Your task to perform on an android device: Go to calendar. Show me events next week Image 0: 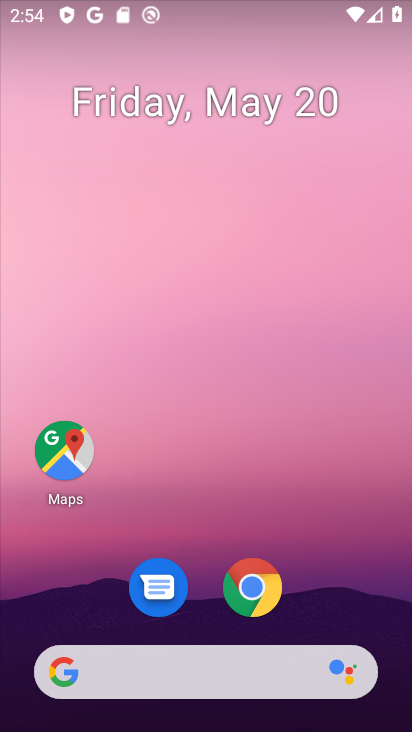
Step 0: press home button
Your task to perform on an android device: Go to calendar. Show me events next week Image 1: 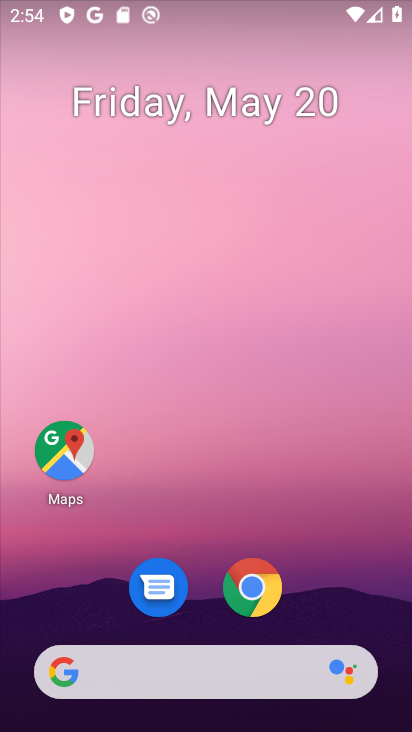
Step 1: drag from (150, 673) to (265, 256)
Your task to perform on an android device: Go to calendar. Show me events next week Image 2: 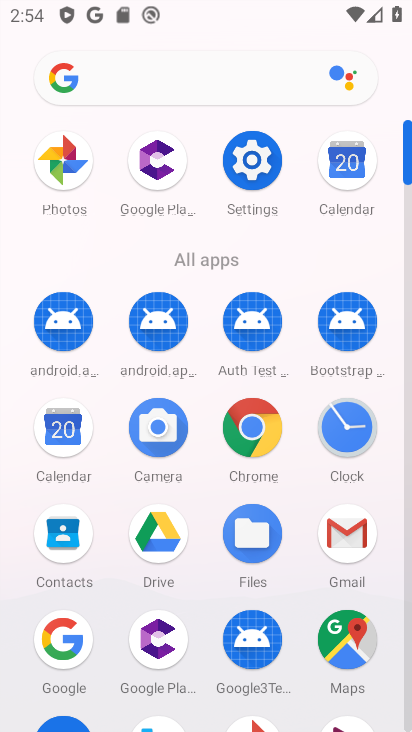
Step 2: click (59, 435)
Your task to perform on an android device: Go to calendar. Show me events next week Image 3: 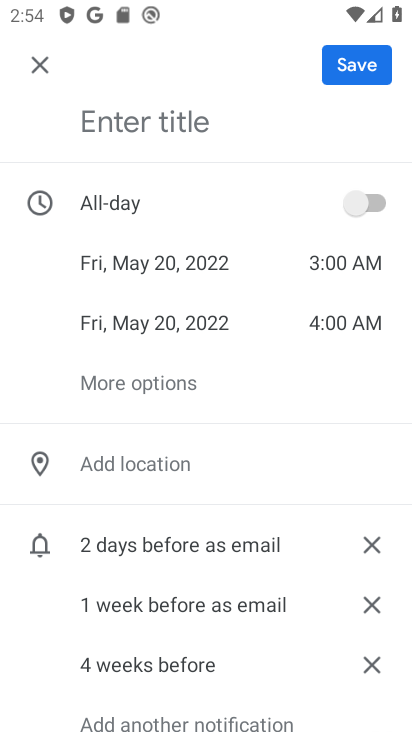
Step 3: click (42, 61)
Your task to perform on an android device: Go to calendar. Show me events next week Image 4: 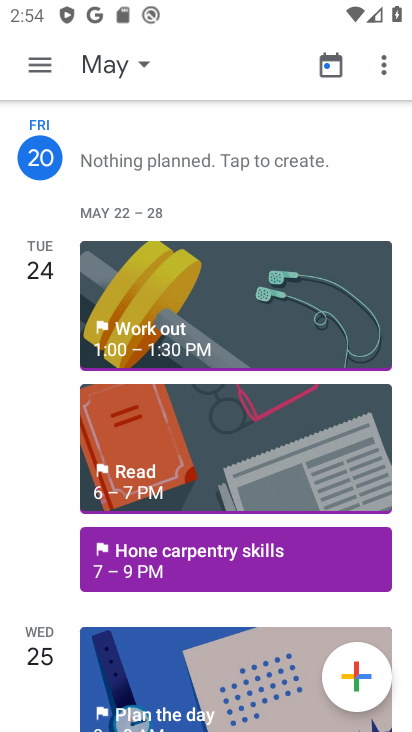
Step 4: click (116, 70)
Your task to perform on an android device: Go to calendar. Show me events next week Image 5: 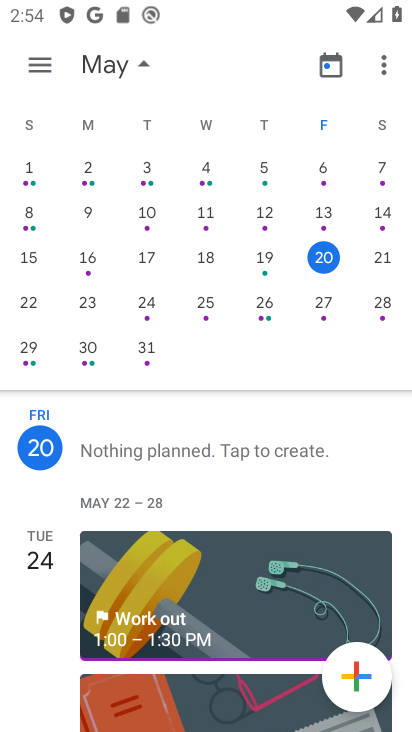
Step 5: drag from (339, 283) to (100, 277)
Your task to perform on an android device: Go to calendar. Show me events next week Image 6: 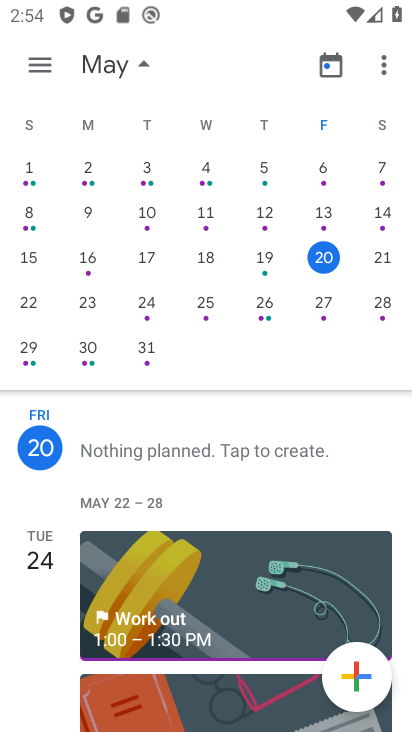
Step 6: drag from (368, 232) to (66, 263)
Your task to perform on an android device: Go to calendar. Show me events next week Image 7: 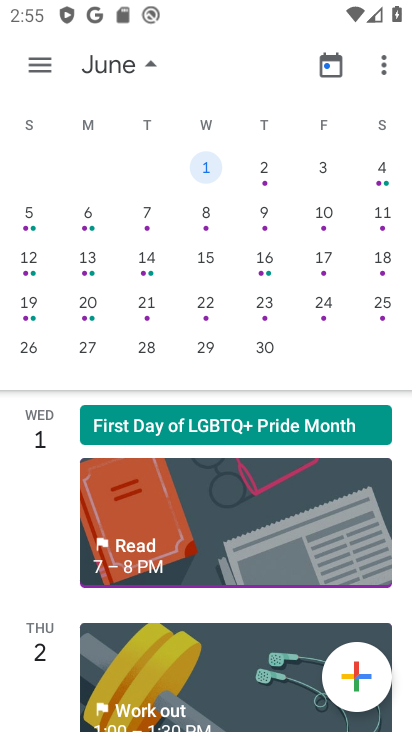
Step 7: drag from (98, 263) to (410, 268)
Your task to perform on an android device: Go to calendar. Show me events next week Image 8: 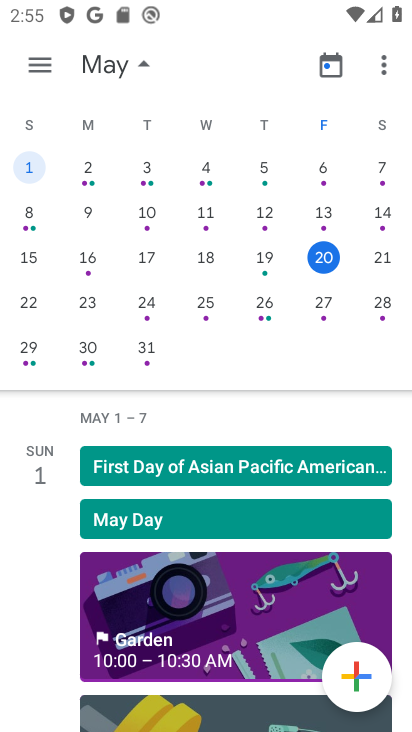
Step 8: click (33, 307)
Your task to perform on an android device: Go to calendar. Show me events next week Image 9: 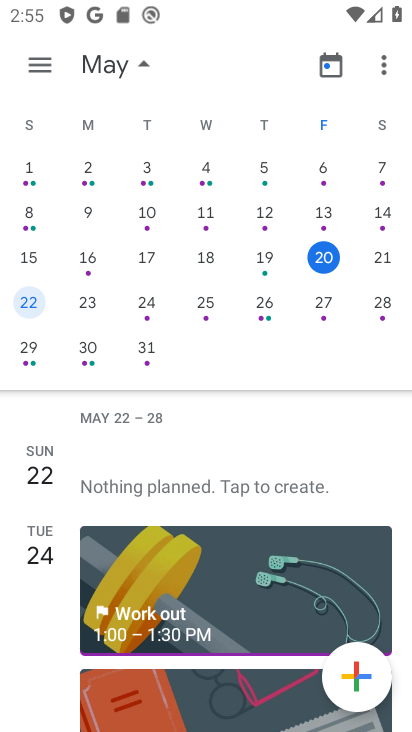
Step 9: click (41, 67)
Your task to perform on an android device: Go to calendar. Show me events next week Image 10: 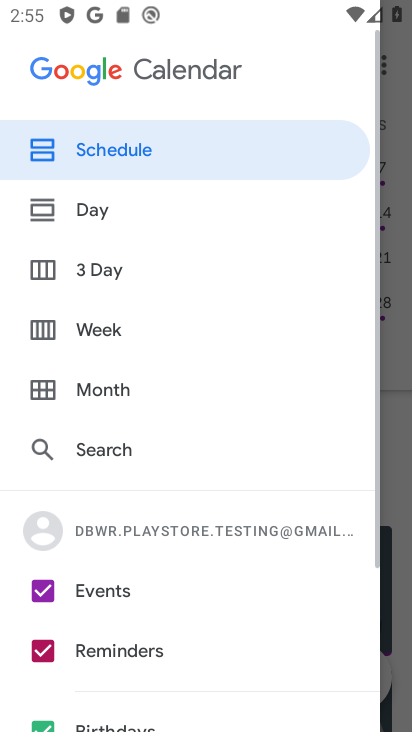
Step 10: click (98, 329)
Your task to perform on an android device: Go to calendar. Show me events next week Image 11: 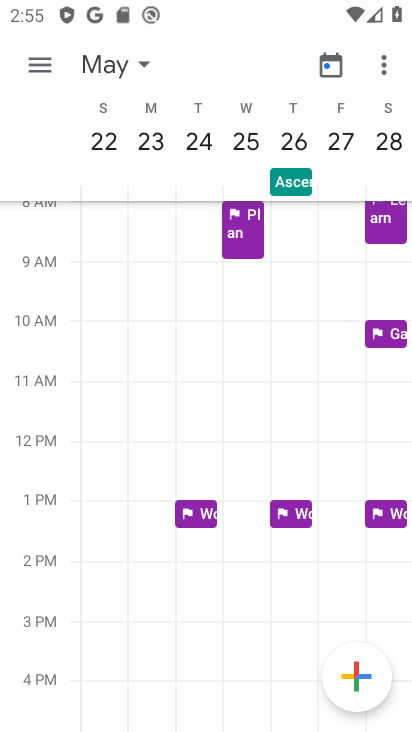
Step 11: click (41, 77)
Your task to perform on an android device: Go to calendar. Show me events next week Image 12: 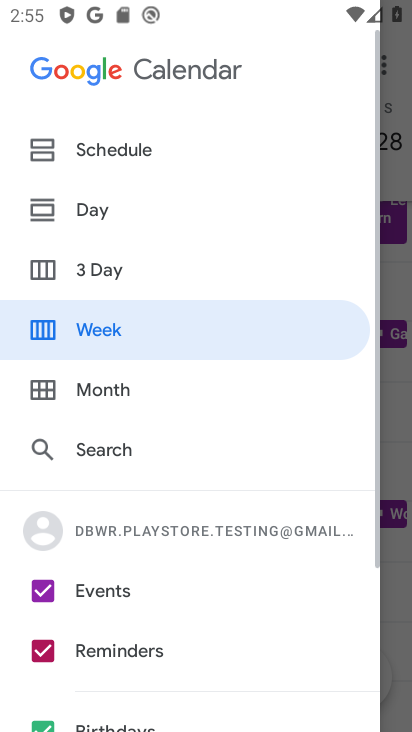
Step 12: click (109, 157)
Your task to perform on an android device: Go to calendar. Show me events next week Image 13: 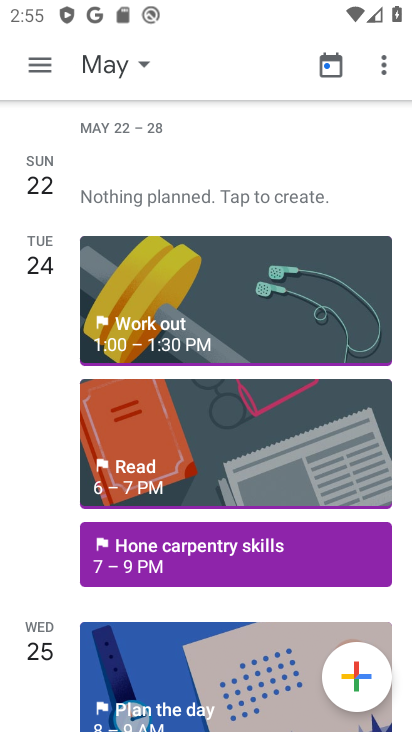
Step 13: click (211, 556)
Your task to perform on an android device: Go to calendar. Show me events next week Image 14: 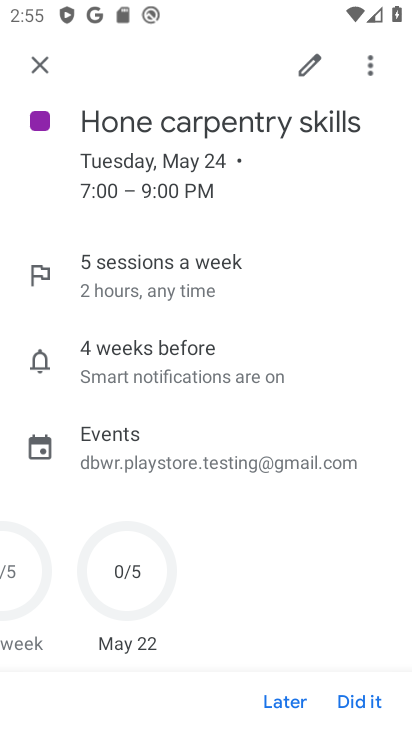
Step 14: task complete